Your task to perform on an android device: uninstall "Adobe Express: Graphic Design" Image 0: 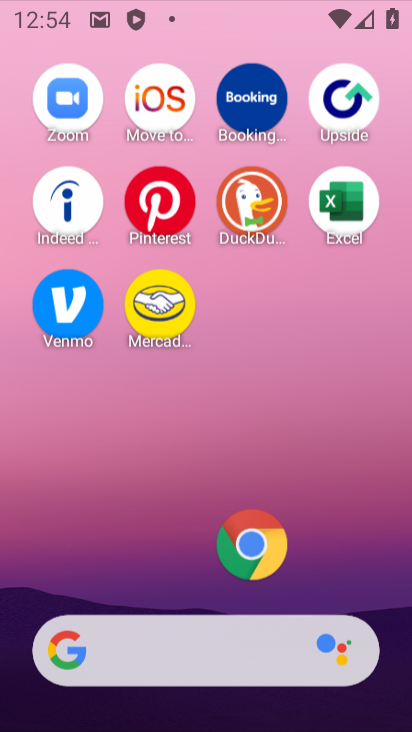
Step 0: click (234, 30)
Your task to perform on an android device: uninstall "Adobe Express: Graphic Design" Image 1: 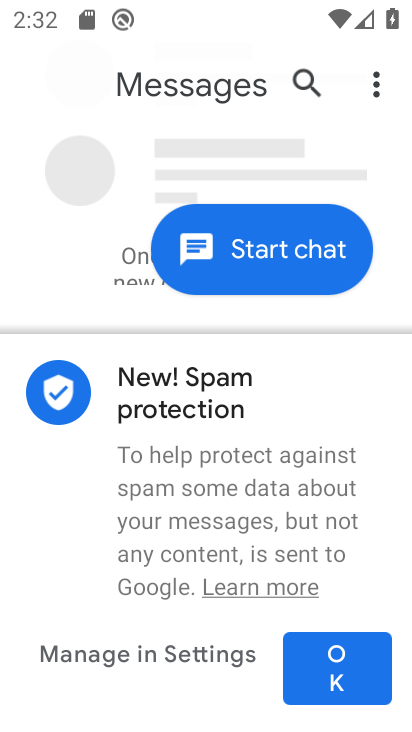
Step 1: press home button
Your task to perform on an android device: uninstall "Adobe Express: Graphic Design" Image 2: 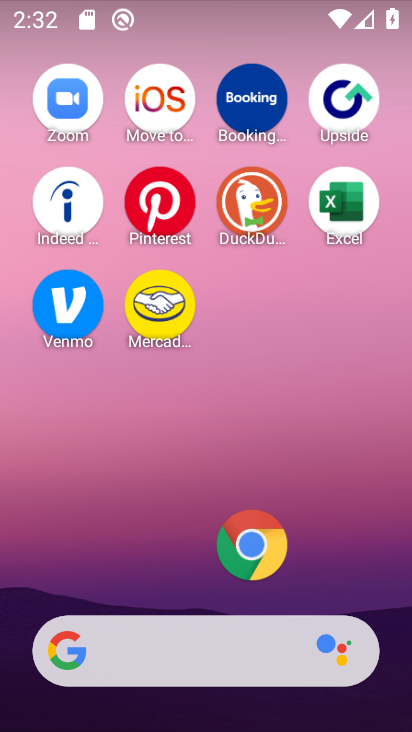
Step 2: drag from (109, 604) to (134, 165)
Your task to perform on an android device: uninstall "Adobe Express: Graphic Design" Image 3: 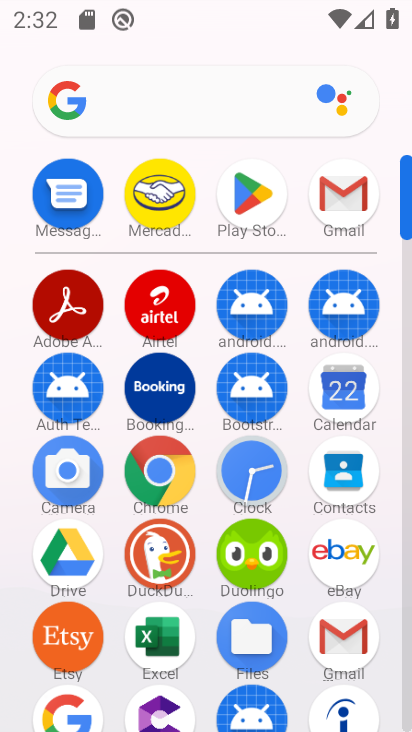
Step 3: click (254, 221)
Your task to perform on an android device: uninstall "Adobe Express: Graphic Design" Image 4: 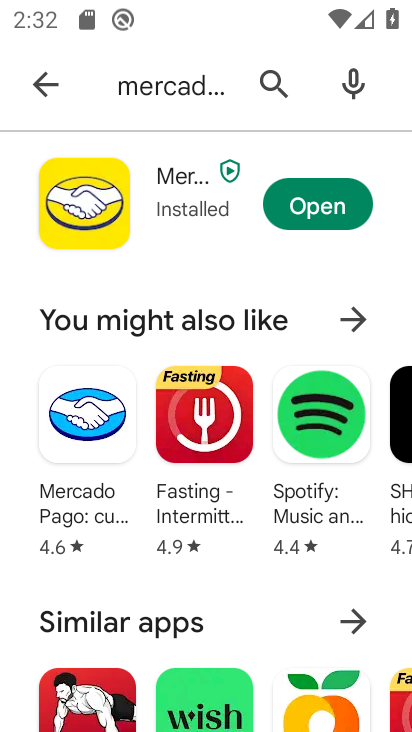
Step 4: click (274, 85)
Your task to perform on an android device: uninstall "Adobe Express: Graphic Design" Image 5: 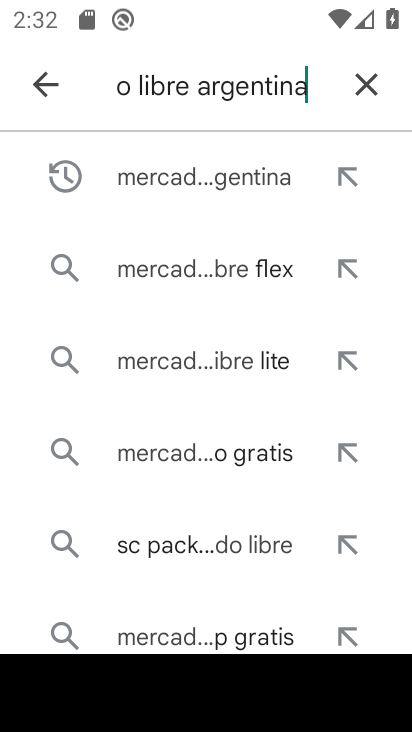
Step 5: click (358, 83)
Your task to perform on an android device: uninstall "Adobe Express: Graphic Design" Image 6: 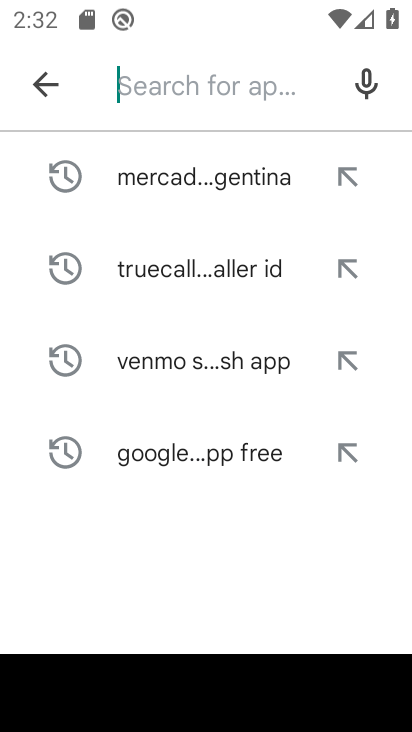
Step 6: click (137, 102)
Your task to perform on an android device: uninstall "Adobe Express: Graphic Design" Image 7: 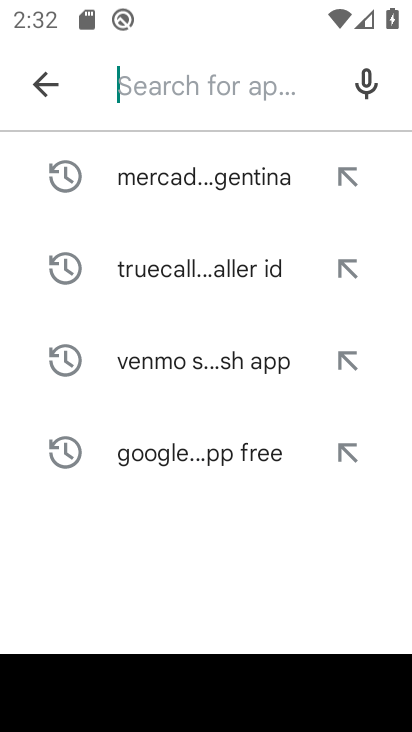
Step 7: type "Adobe Express: Graphic Design"
Your task to perform on an android device: uninstall "Adobe Express: Graphic Design" Image 8: 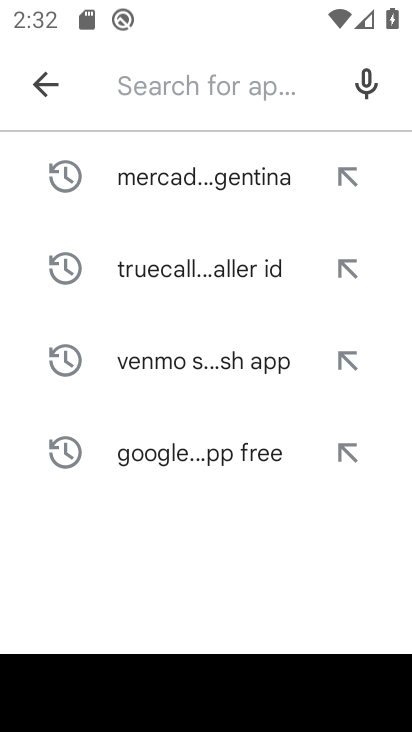
Step 8: click (197, 560)
Your task to perform on an android device: uninstall "Adobe Express: Graphic Design" Image 9: 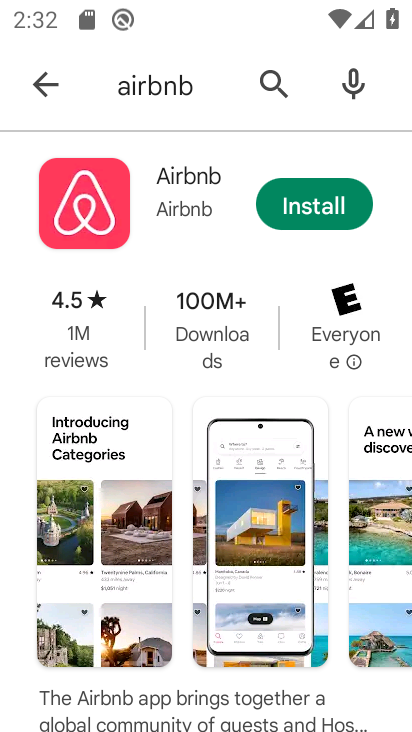
Step 9: click (278, 91)
Your task to perform on an android device: uninstall "Adobe Express: Graphic Design" Image 10: 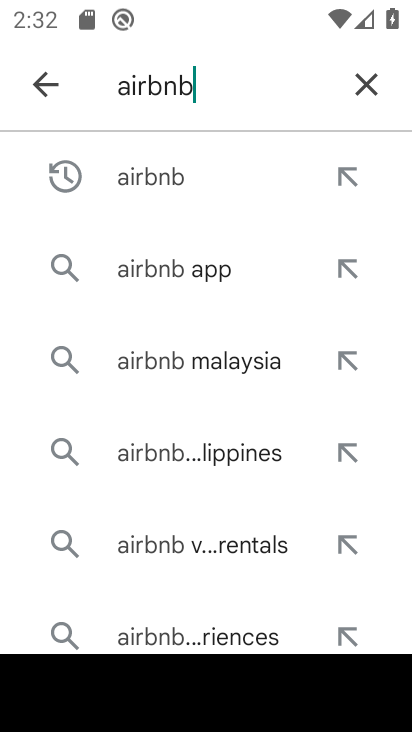
Step 10: click (365, 79)
Your task to perform on an android device: uninstall "Adobe Express: Graphic Design" Image 11: 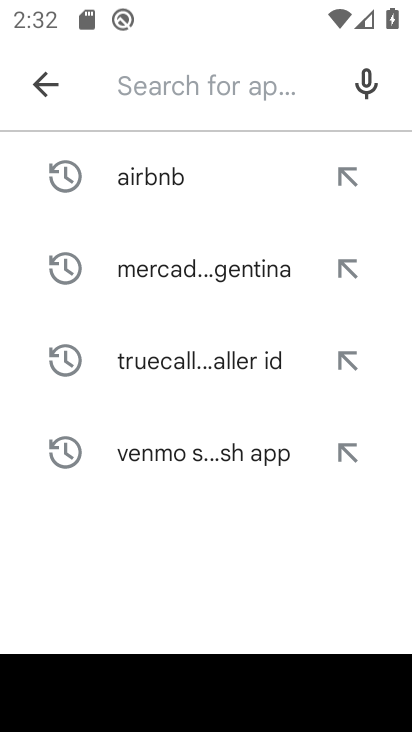
Step 11: click (128, 85)
Your task to perform on an android device: uninstall "Adobe Express: Graphic Design" Image 12: 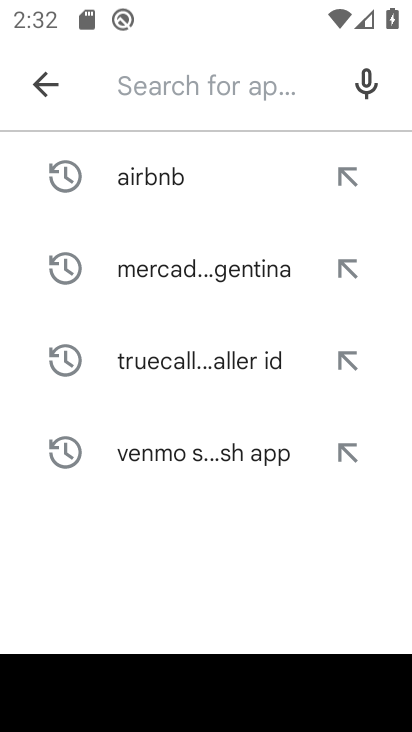
Step 12: type "Adobe Express: Graphic Design"
Your task to perform on an android device: uninstall "Adobe Express: Graphic Design" Image 13: 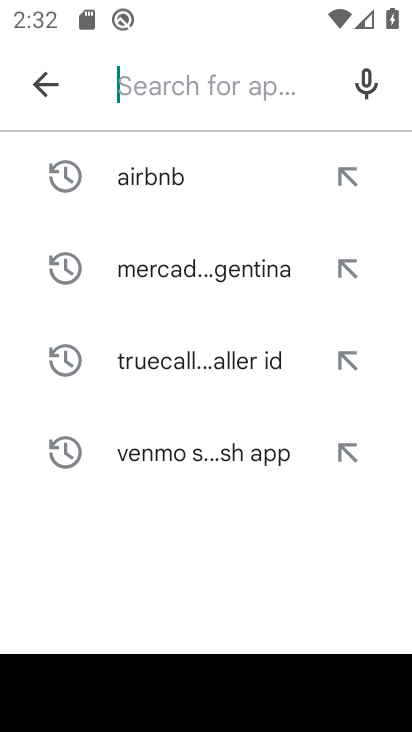
Step 13: click (203, 503)
Your task to perform on an android device: uninstall "Adobe Express: Graphic Design" Image 14: 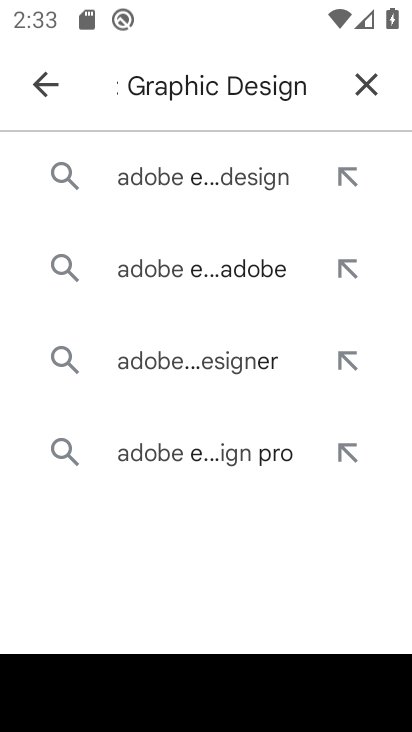
Step 14: click (204, 170)
Your task to perform on an android device: uninstall "Adobe Express: Graphic Design" Image 15: 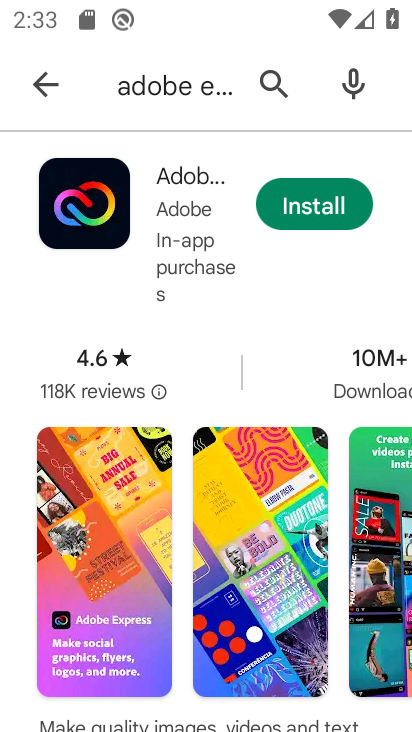
Step 15: task complete